Your task to perform on an android device: turn on showing notifications on the lock screen Image 0: 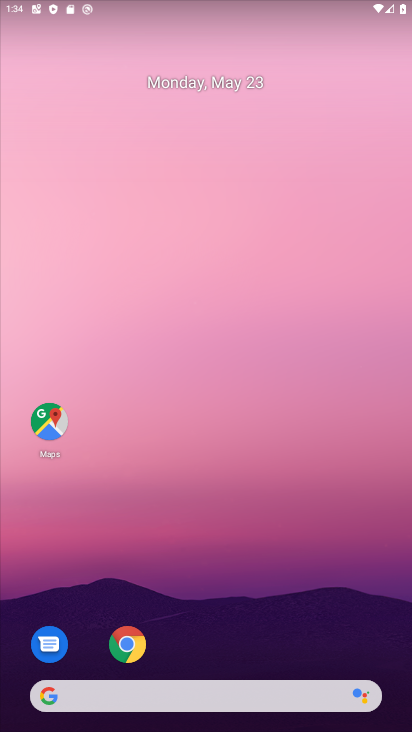
Step 0: drag from (282, 523) to (225, 7)
Your task to perform on an android device: turn on showing notifications on the lock screen Image 1: 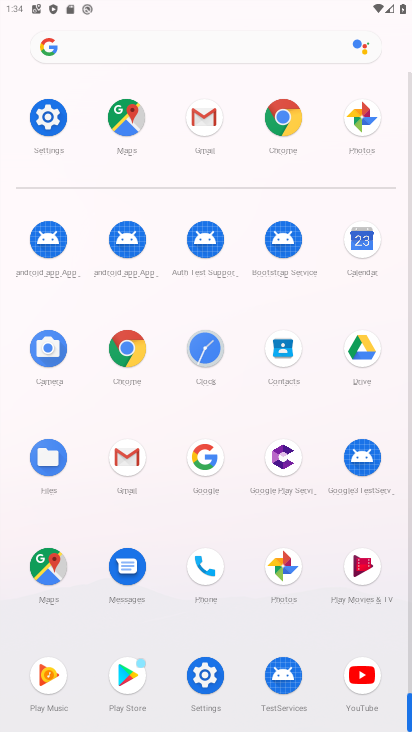
Step 1: drag from (4, 524) to (3, 208)
Your task to perform on an android device: turn on showing notifications on the lock screen Image 2: 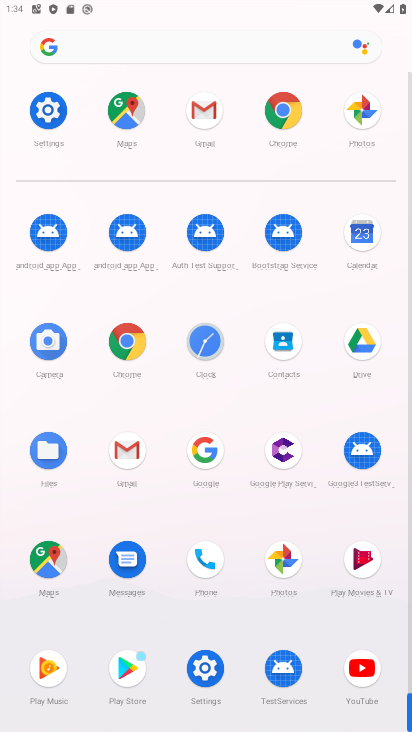
Step 2: click (202, 667)
Your task to perform on an android device: turn on showing notifications on the lock screen Image 3: 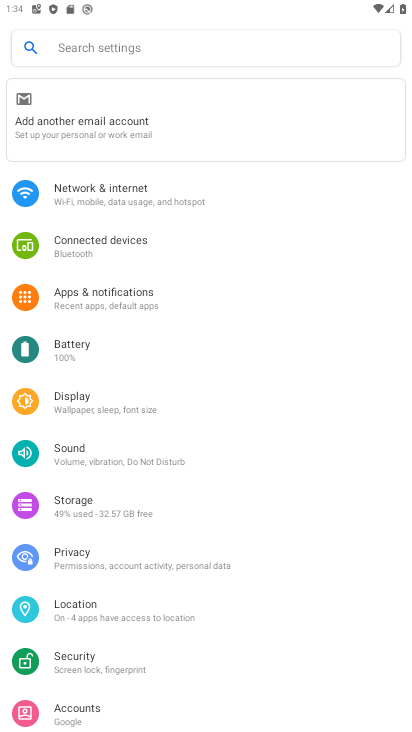
Step 3: click (111, 292)
Your task to perform on an android device: turn on showing notifications on the lock screen Image 4: 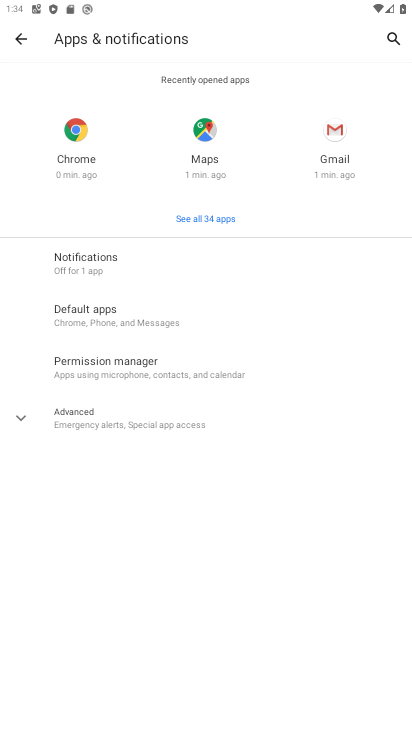
Step 4: click (11, 424)
Your task to perform on an android device: turn on showing notifications on the lock screen Image 5: 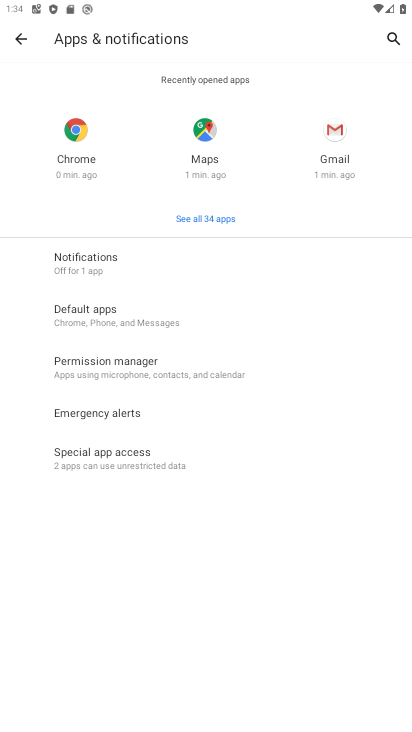
Step 5: click (116, 259)
Your task to perform on an android device: turn on showing notifications on the lock screen Image 6: 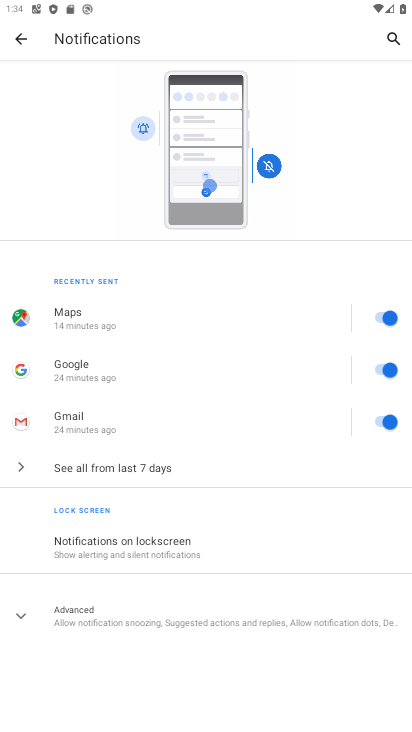
Step 6: click (34, 611)
Your task to perform on an android device: turn on showing notifications on the lock screen Image 7: 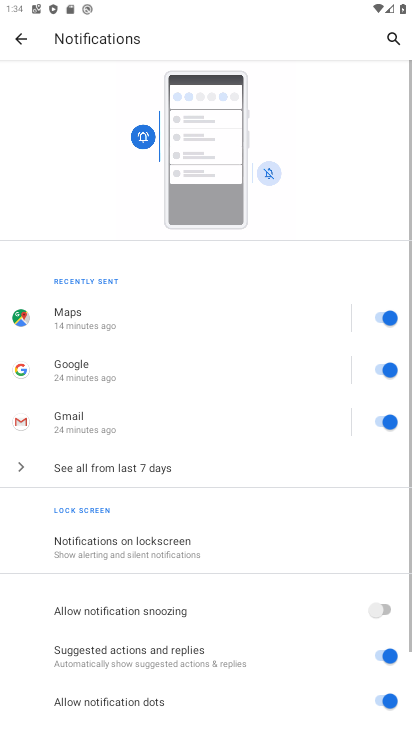
Step 7: task complete